Your task to perform on an android device: turn off airplane mode Image 0: 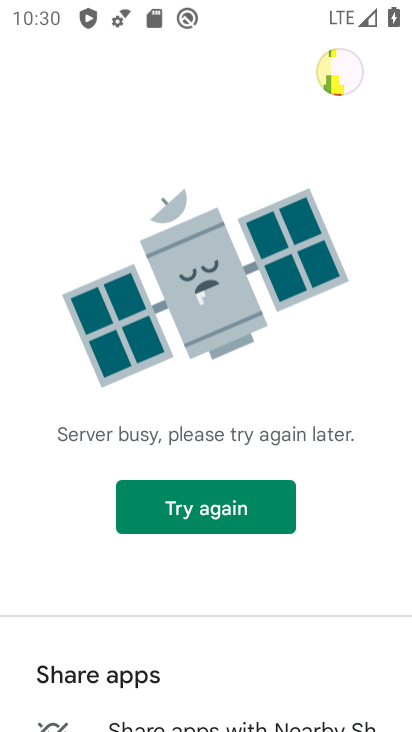
Step 0: press home button
Your task to perform on an android device: turn off airplane mode Image 1: 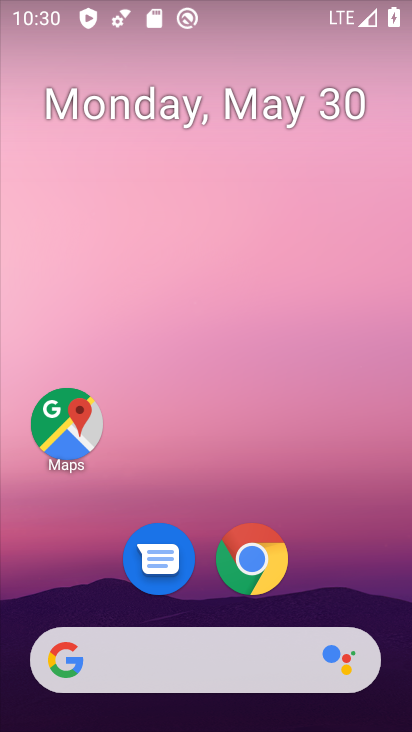
Step 1: drag from (385, 596) to (330, 248)
Your task to perform on an android device: turn off airplane mode Image 2: 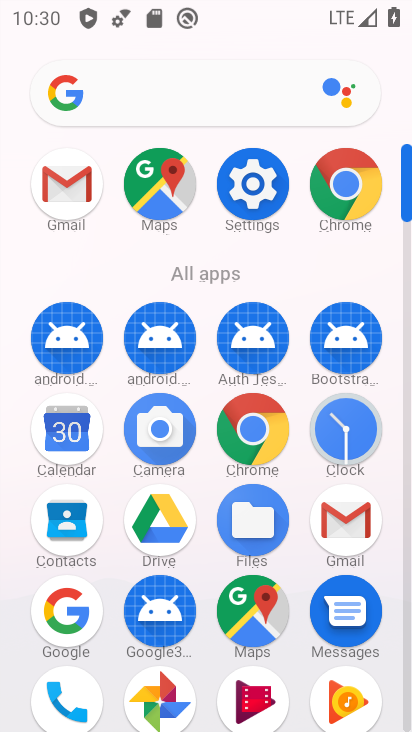
Step 2: click (267, 206)
Your task to perform on an android device: turn off airplane mode Image 3: 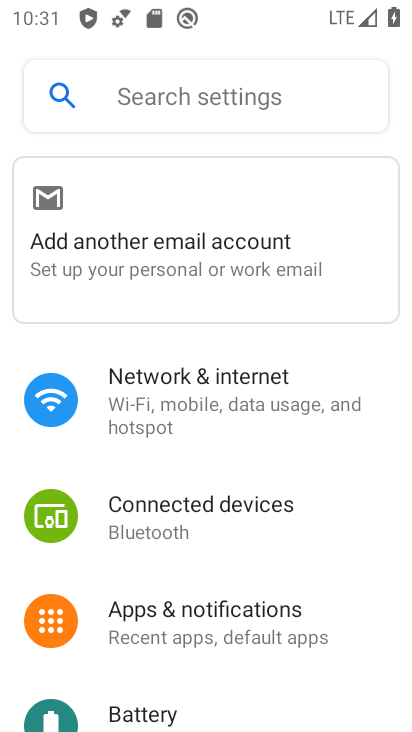
Step 3: click (256, 417)
Your task to perform on an android device: turn off airplane mode Image 4: 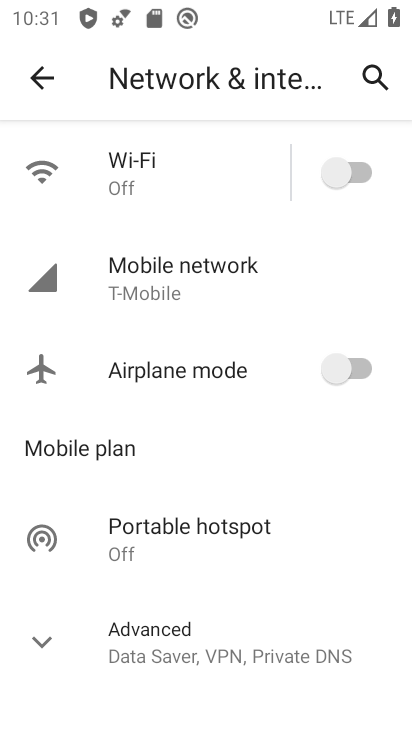
Step 4: task complete